Your task to perform on an android device: Go to Reddit.com Image 0: 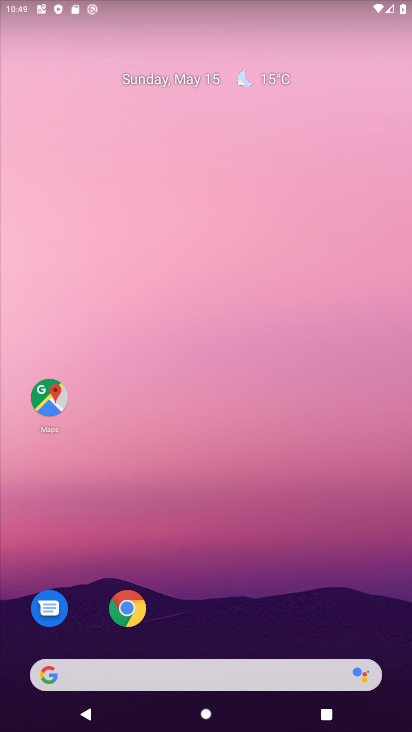
Step 0: click (132, 619)
Your task to perform on an android device: Go to Reddit.com Image 1: 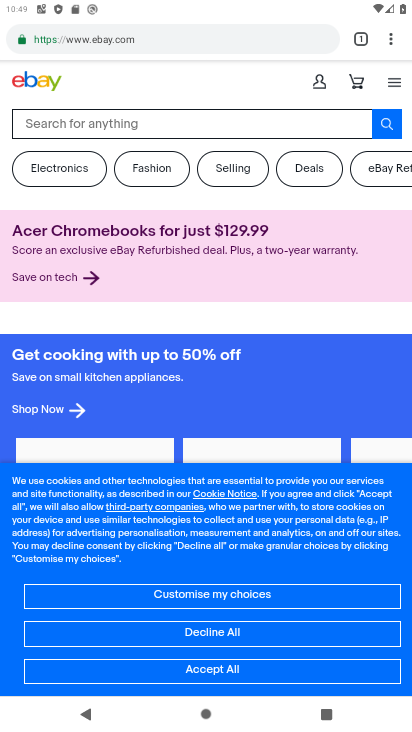
Step 1: click (179, 43)
Your task to perform on an android device: Go to Reddit.com Image 2: 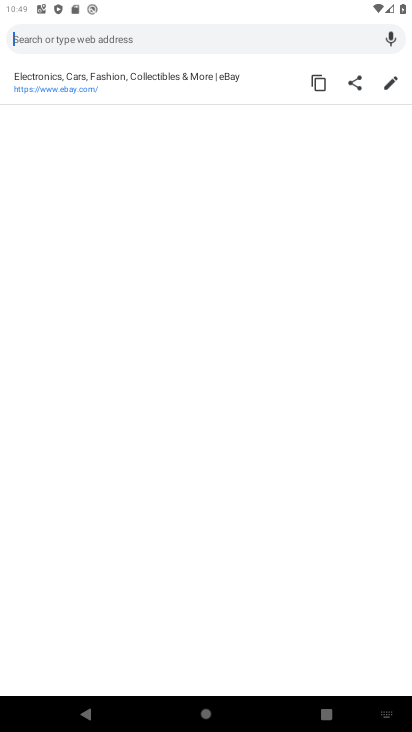
Step 2: type "www.reddit.com"
Your task to perform on an android device: Go to Reddit.com Image 3: 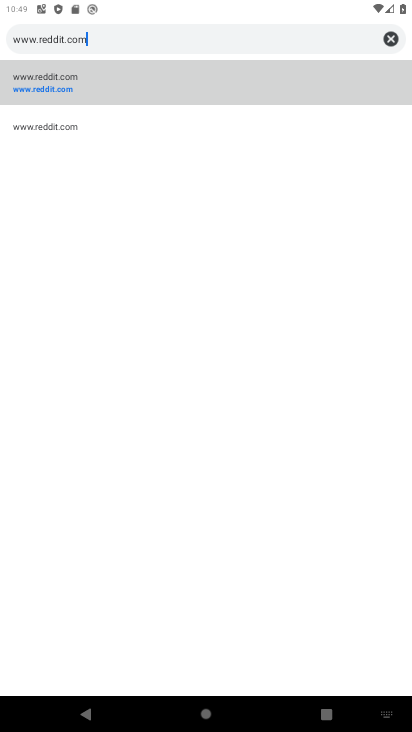
Step 3: click (42, 79)
Your task to perform on an android device: Go to Reddit.com Image 4: 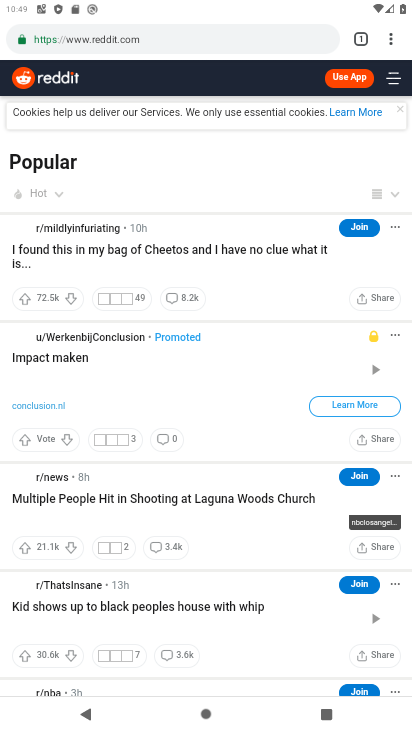
Step 4: task complete